Your task to perform on an android device: Go to Wikipedia Image 0: 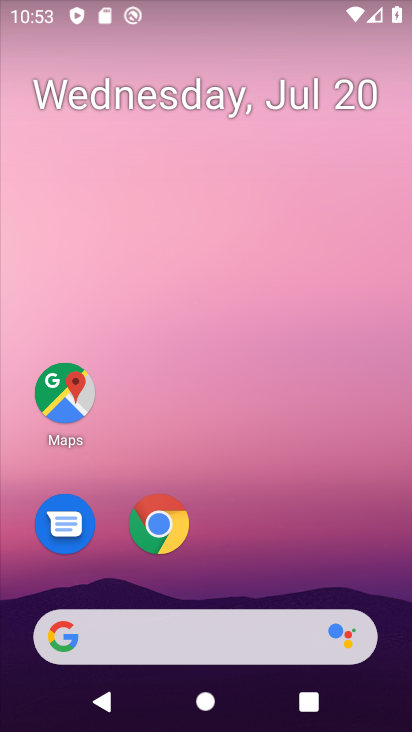
Step 0: click (182, 525)
Your task to perform on an android device: Go to Wikipedia Image 1: 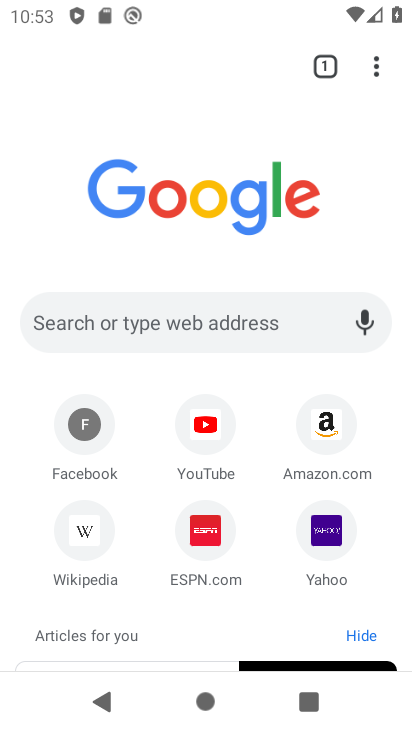
Step 1: click (94, 536)
Your task to perform on an android device: Go to Wikipedia Image 2: 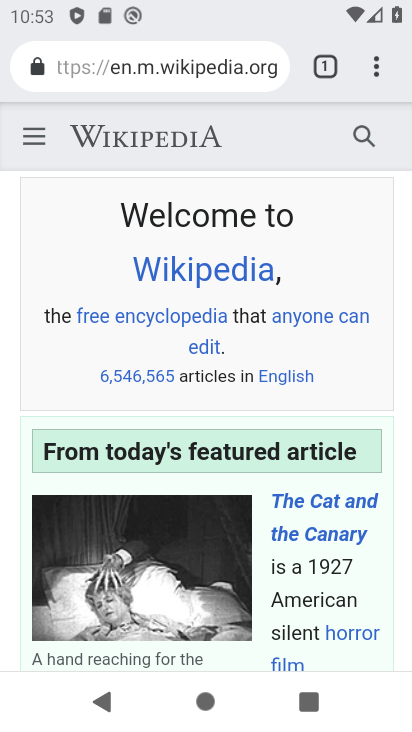
Step 2: task complete